Your task to perform on an android device: Open maps Image 0: 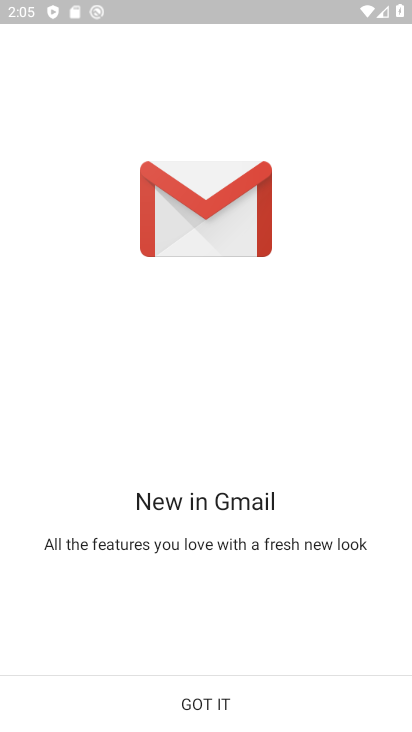
Step 0: press home button
Your task to perform on an android device: Open maps Image 1: 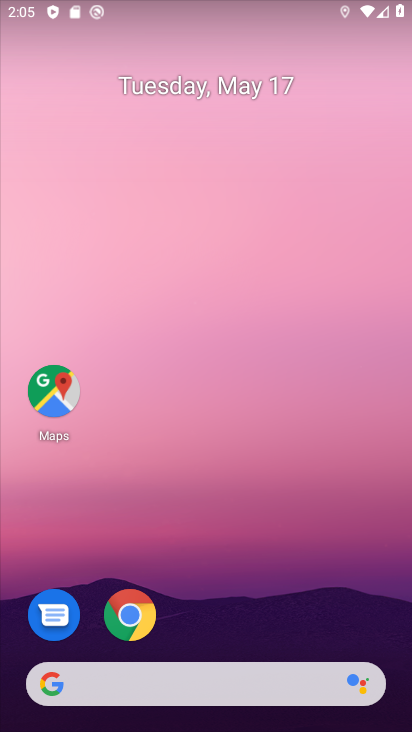
Step 1: drag from (225, 719) to (225, 250)
Your task to perform on an android device: Open maps Image 2: 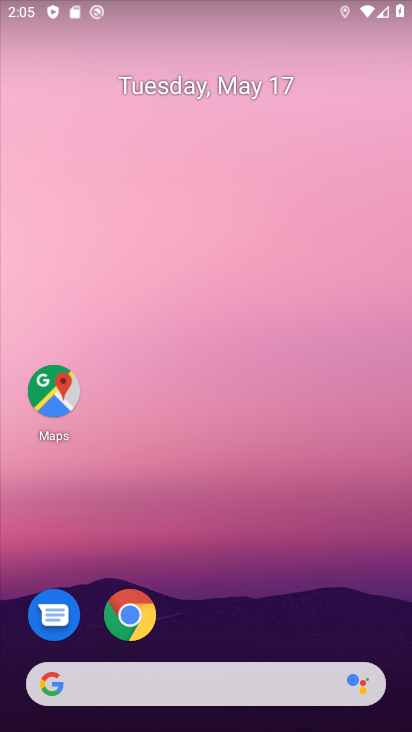
Step 2: drag from (226, 713) to (223, 164)
Your task to perform on an android device: Open maps Image 3: 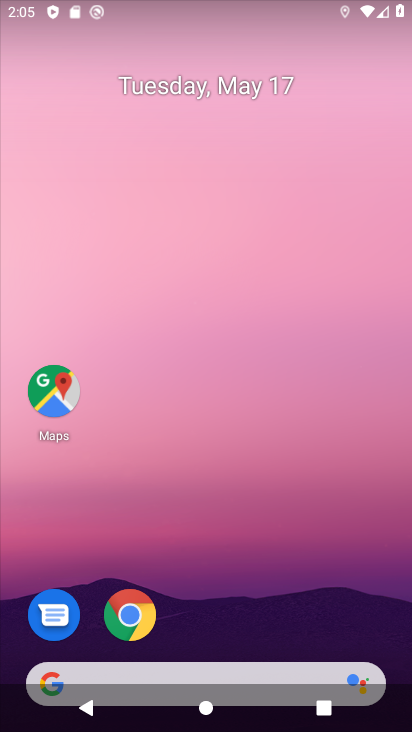
Step 3: drag from (249, 729) to (243, 99)
Your task to perform on an android device: Open maps Image 4: 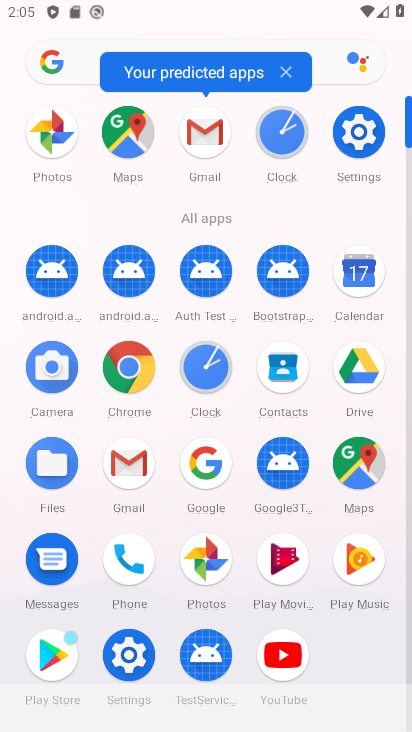
Step 4: click (366, 469)
Your task to perform on an android device: Open maps Image 5: 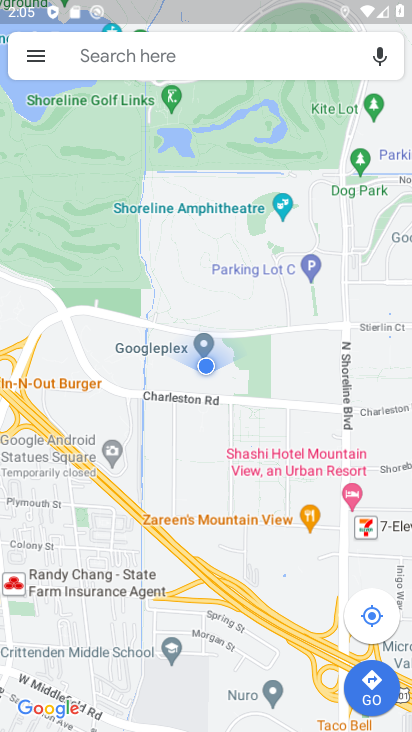
Step 5: task complete